Your task to perform on an android device: open device folders in google photos Image 0: 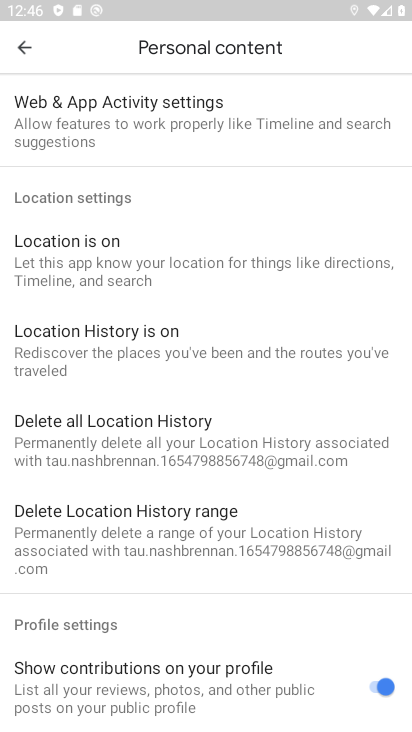
Step 0: press home button
Your task to perform on an android device: open device folders in google photos Image 1: 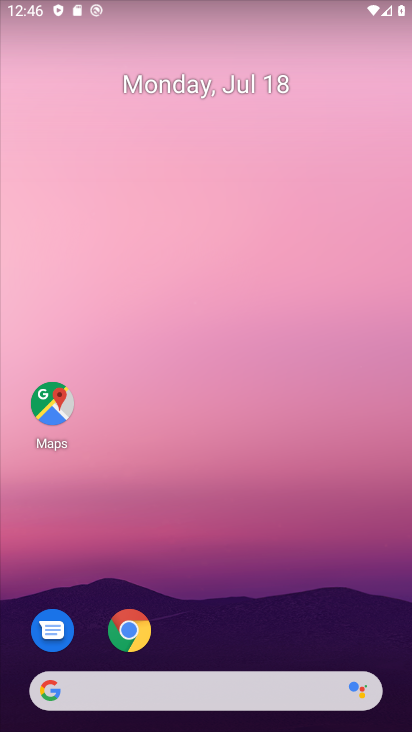
Step 1: drag from (261, 601) to (238, 11)
Your task to perform on an android device: open device folders in google photos Image 2: 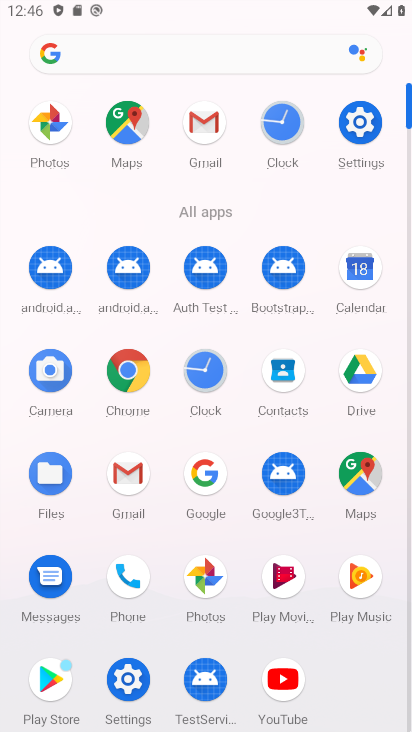
Step 2: click (56, 124)
Your task to perform on an android device: open device folders in google photos Image 3: 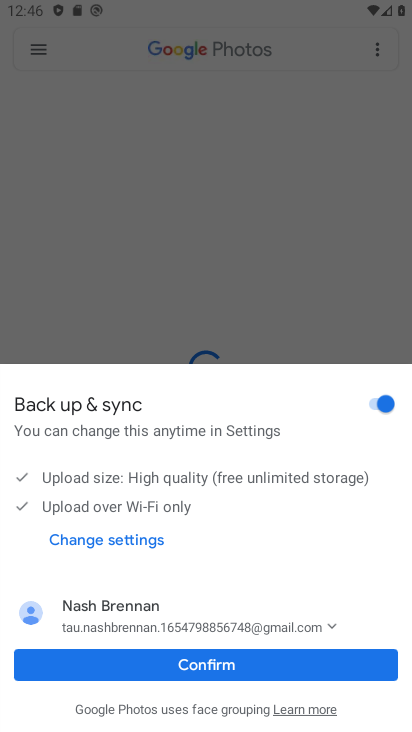
Step 3: click (307, 667)
Your task to perform on an android device: open device folders in google photos Image 4: 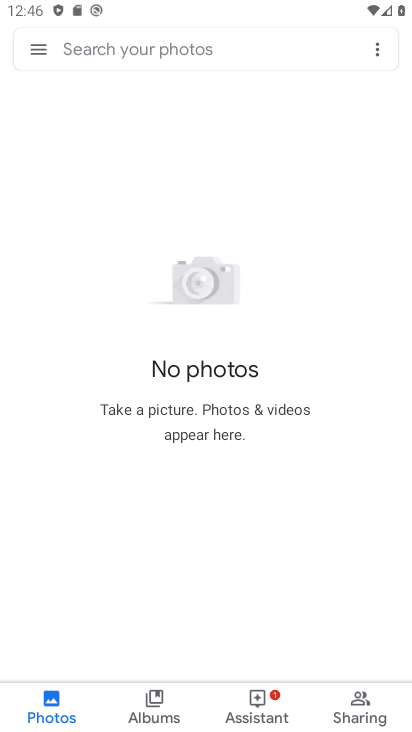
Step 4: click (37, 46)
Your task to perform on an android device: open device folders in google photos Image 5: 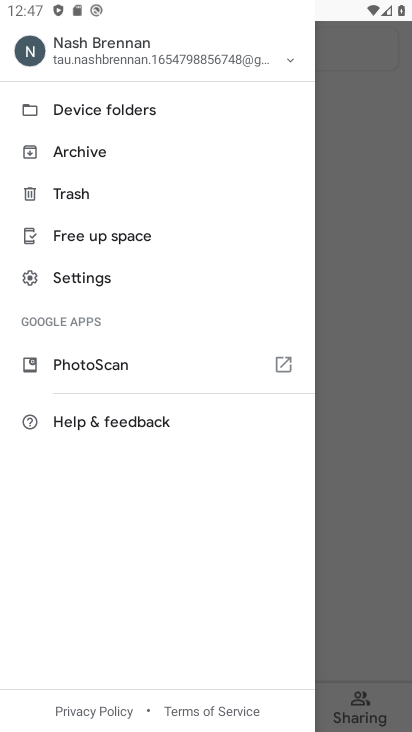
Step 5: click (82, 114)
Your task to perform on an android device: open device folders in google photos Image 6: 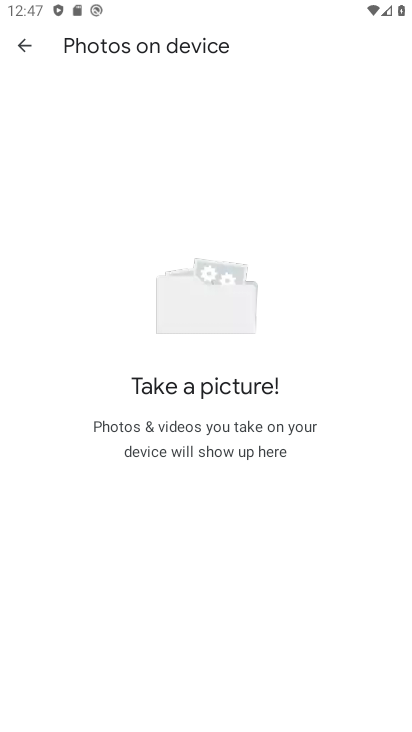
Step 6: task complete